Your task to perform on an android device: Search for pizza restaurants on Maps Image 0: 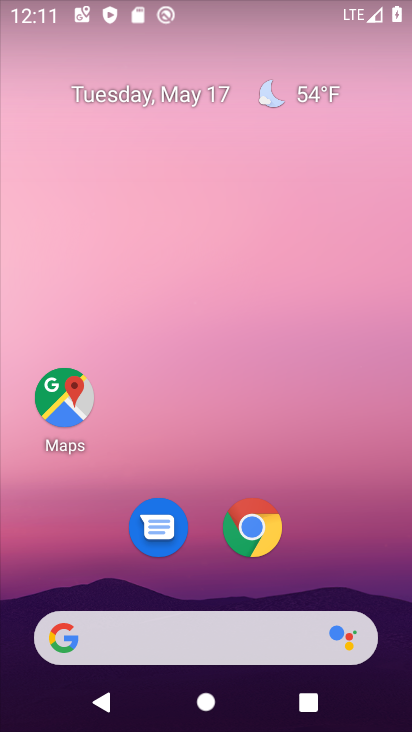
Step 0: drag from (256, 670) to (258, 167)
Your task to perform on an android device: Search for pizza restaurants on Maps Image 1: 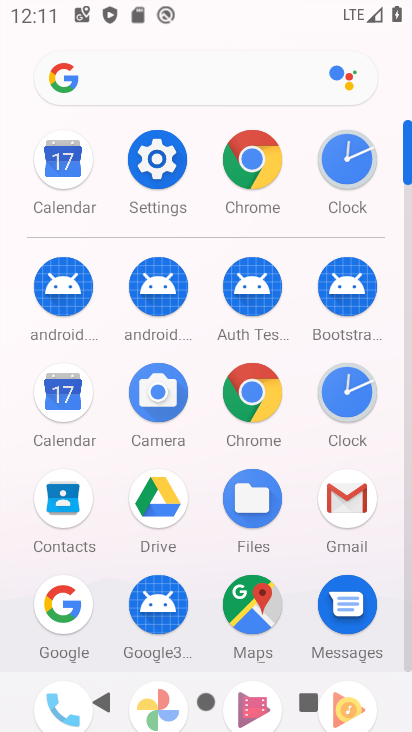
Step 1: click (223, 610)
Your task to perform on an android device: Search for pizza restaurants on Maps Image 2: 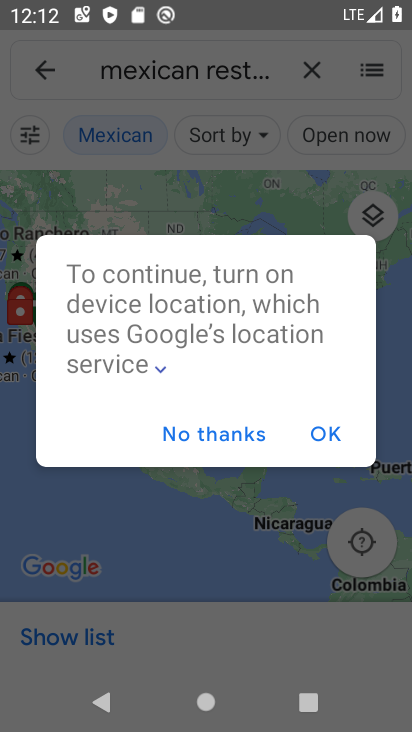
Step 2: click (194, 432)
Your task to perform on an android device: Search for pizza restaurants on Maps Image 3: 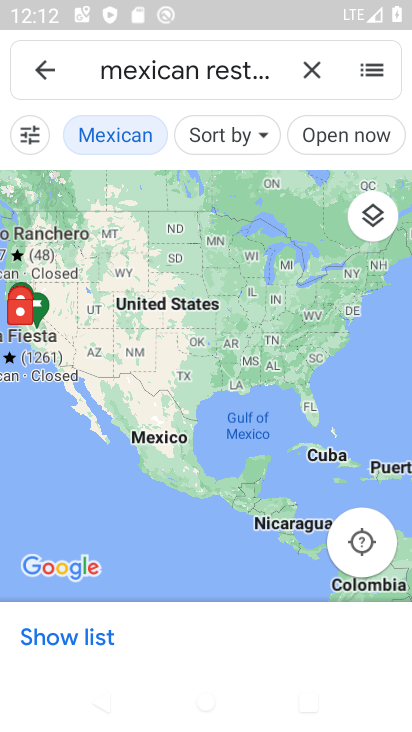
Step 3: click (311, 82)
Your task to perform on an android device: Search for pizza restaurants on Maps Image 4: 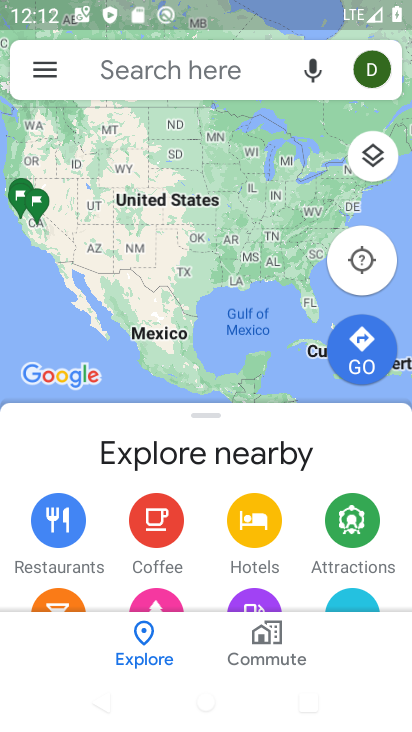
Step 4: click (261, 76)
Your task to perform on an android device: Search for pizza restaurants on Maps Image 5: 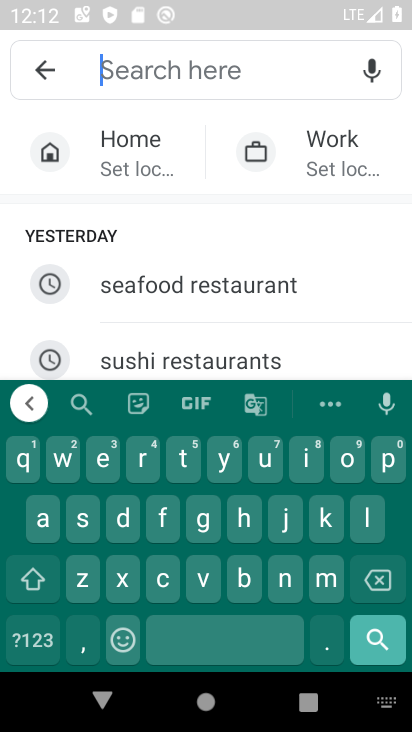
Step 5: click (378, 462)
Your task to perform on an android device: Search for pizza restaurants on Maps Image 6: 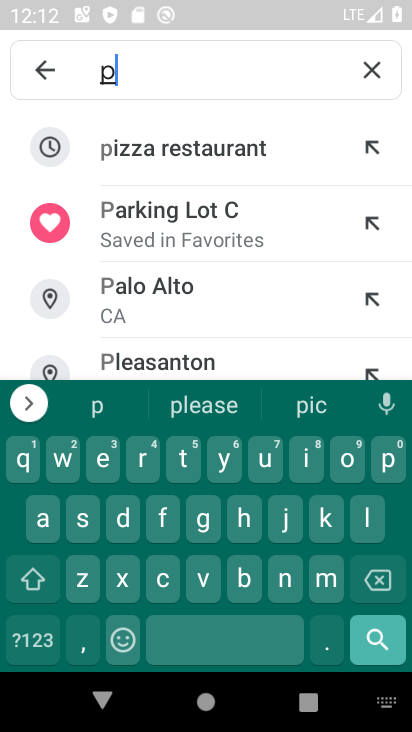
Step 6: click (183, 154)
Your task to perform on an android device: Search for pizza restaurants on Maps Image 7: 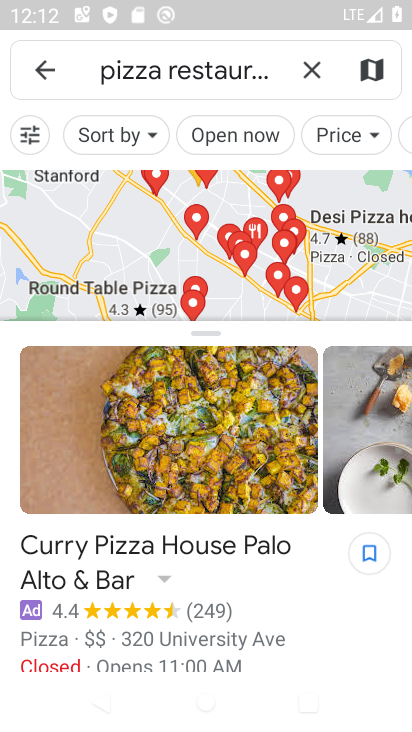
Step 7: click (127, 219)
Your task to perform on an android device: Search for pizza restaurants on Maps Image 8: 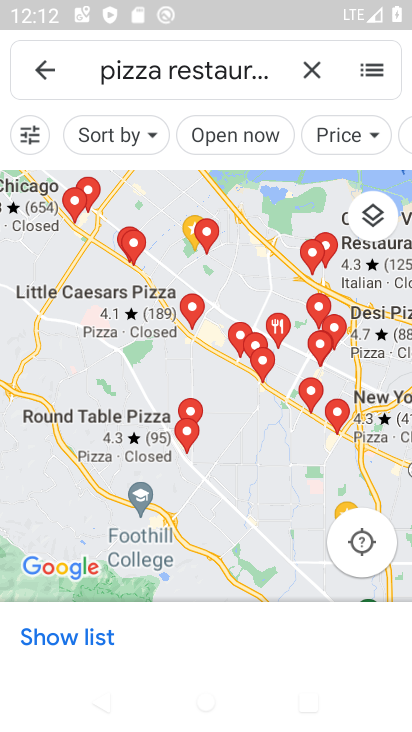
Step 8: task complete